Your task to perform on an android device: move a message to another label in the gmail app Image 0: 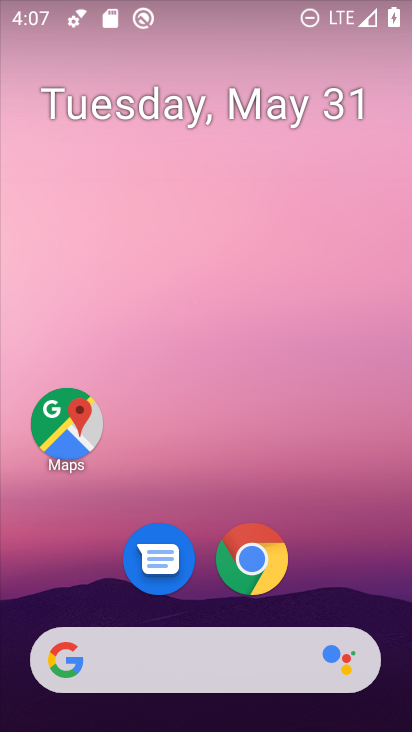
Step 0: click (280, 337)
Your task to perform on an android device: move a message to another label in the gmail app Image 1: 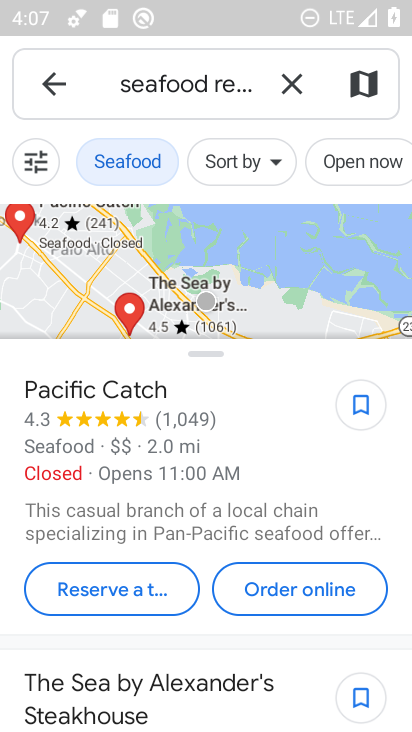
Step 1: press home button
Your task to perform on an android device: move a message to another label in the gmail app Image 2: 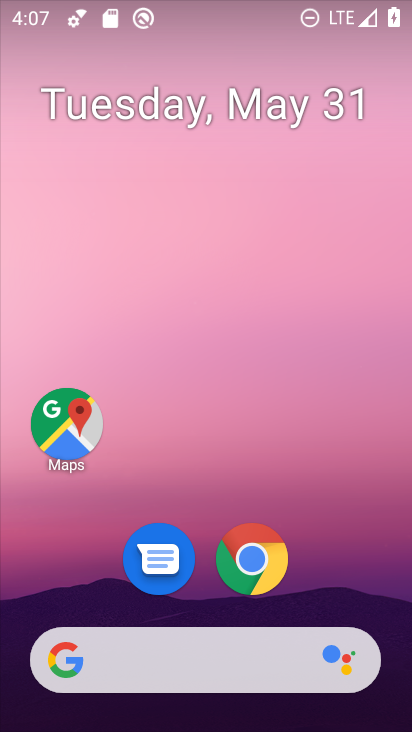
Step 2: click (253, 562)
Your task to perform on an android device: move a message to another label in the gmail app Image 3: 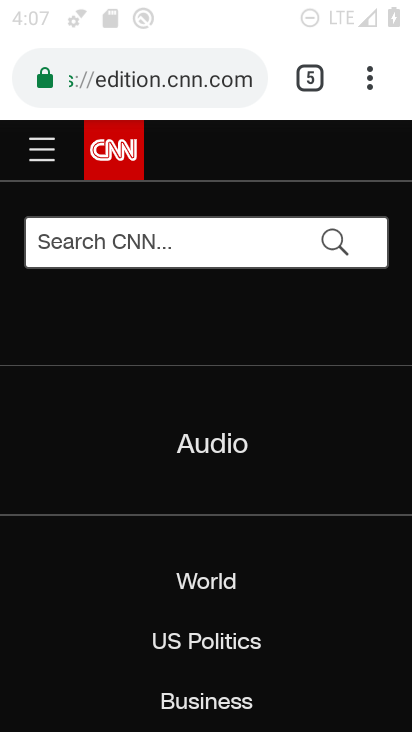
Step 3: press home button
Your task to perform on an android device: move a message to another label in the gmail app Image 4: 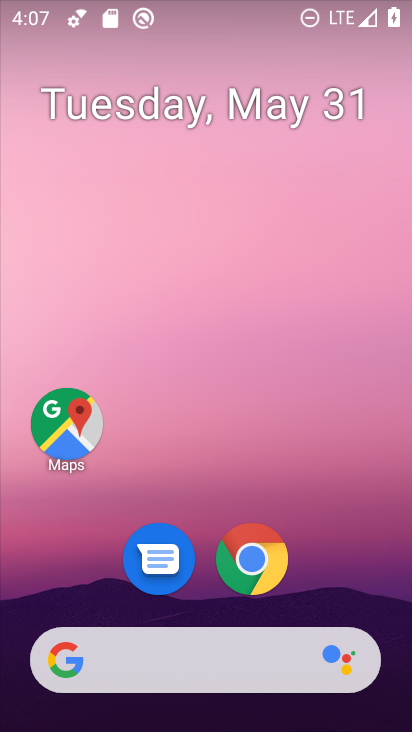
Step 4: drag from (229, 713) to (230, 351)
Your task to perform on an android device: move a message to another label in the gmail app Image 5: 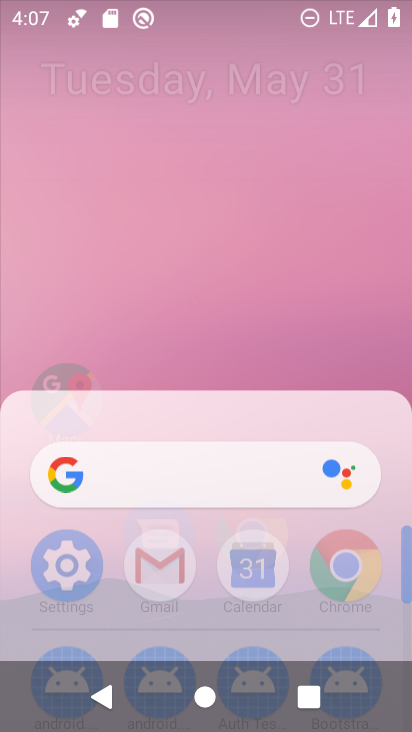
Step 5: click (231, 123)
Your task to perform on an android device: move a message to another label in the gmail app Image 6: 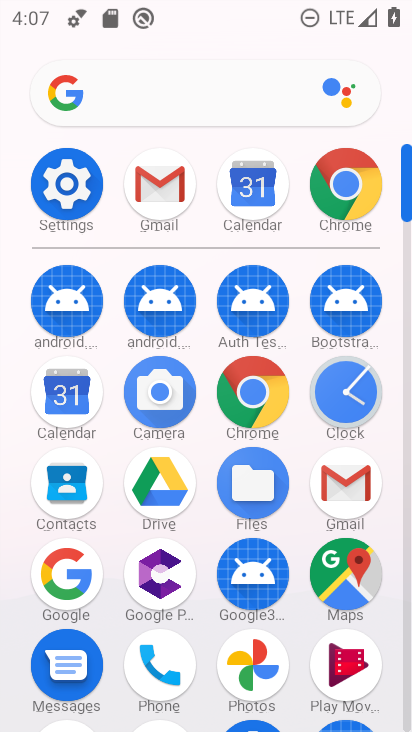
Step 6: click (342, 485)
Your task to perform on an android device: move a message to another label in the gmail app Image 7: 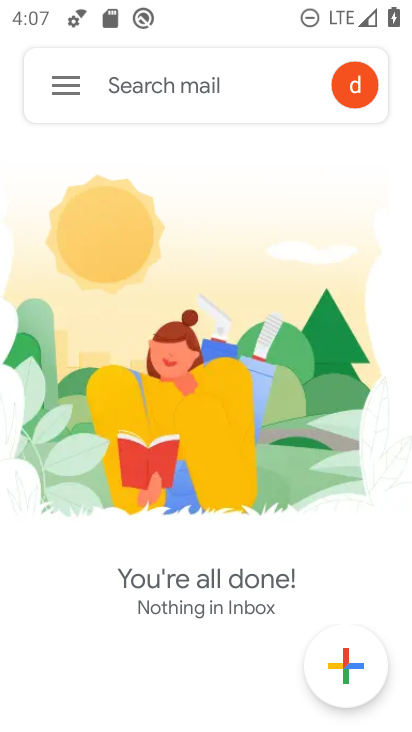
Step 7: click (72, 85)
Your task to perform on an android device: move a message to another label in the gmail app Image 8: 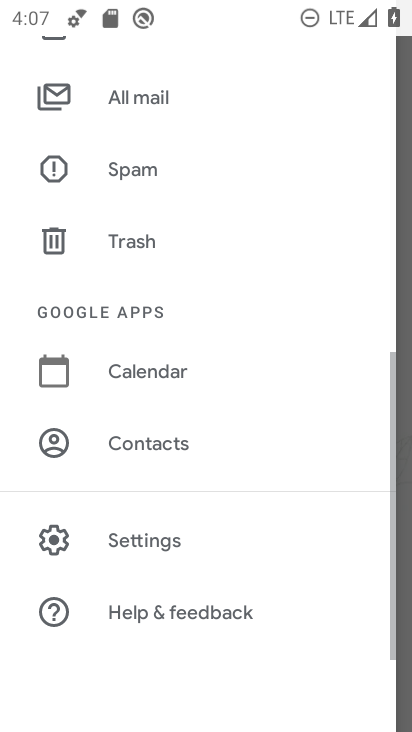
Step 8: drag from (190, 203) to (204, 573)
Your task to perform on an android device: move a message to another label in the gmail app Image 9: 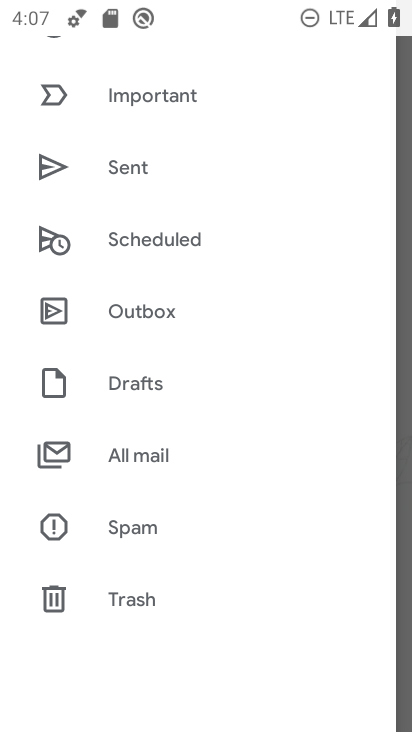
Step 9: drag from (211, 128) to (232, 298)
Your task to perform on an android device: move a message to another label in the gmail app Image 10: 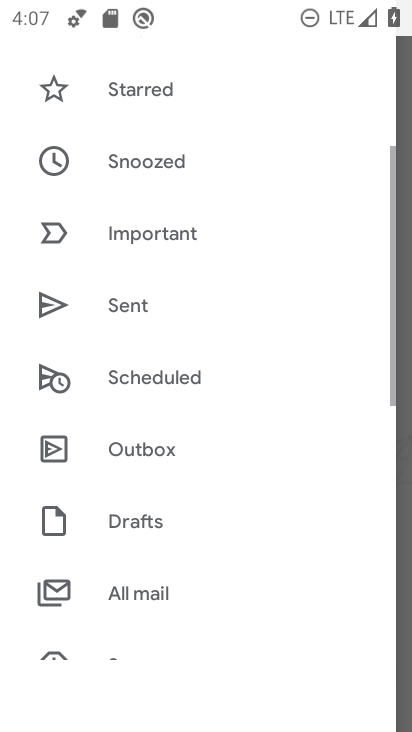
Step 10: drag from (253, 564) to (260, 632)
Your task to perform on an android device: move a message to another label in the gmail app Image 11: 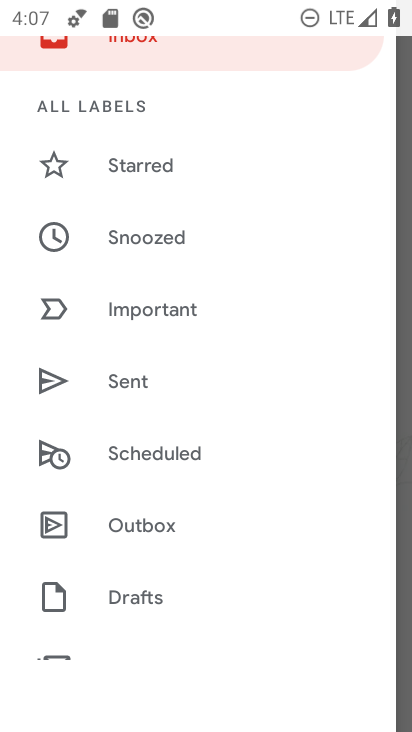
Step 11: drag from (206, 123) to (220, 409)
Your task to perform on an android device: move a message to another label in the gmail app Image 12: 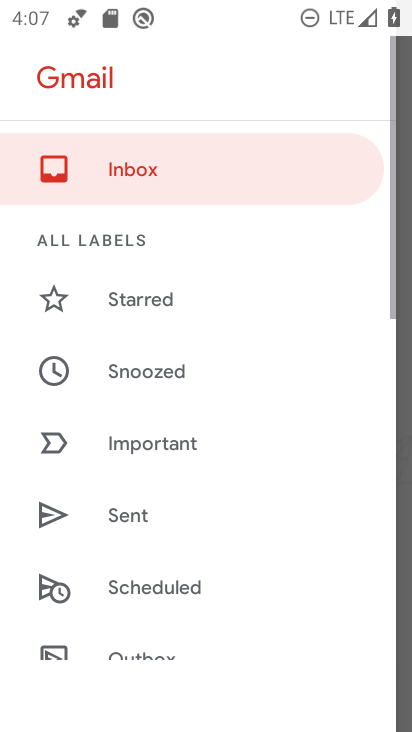
Step 12: click (229, 480)
Your task to perform on an android device: move a message to another label in the gmail app Image 13: 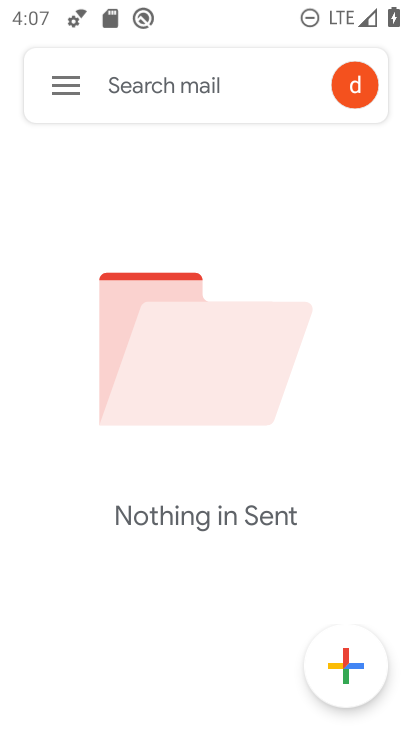
Step 13: click (56, 78)
Your task to perform on an android device: move a message to another label in the gmail app Image 14: 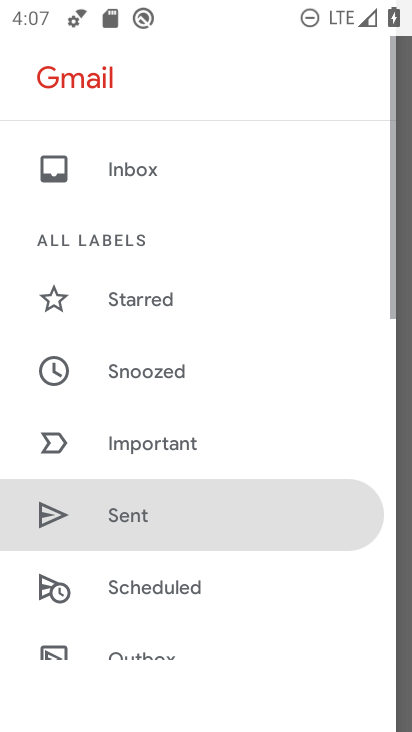
Step 14: click (133, 166)
Your task to perform on an android device: move a message to another label in the gmail app Image 15: 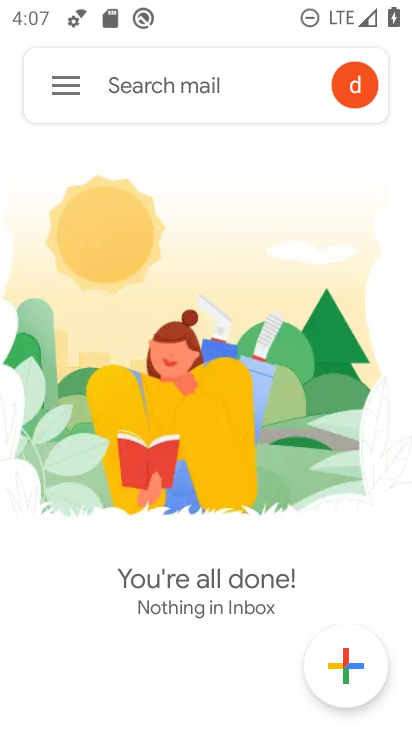
Step 15: task complete